Your task to perform on an android device: What's on my calendar today? Image 0: 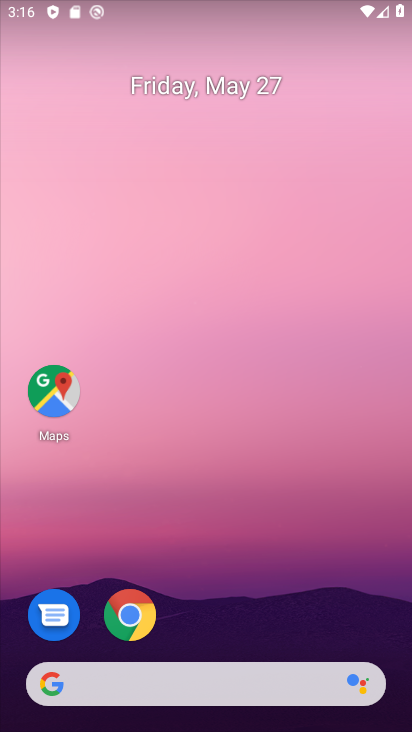
Step 0: drag from (113, 709) to (20, 316)
Your task to perform on an android device: What's on my calendar today? Image 1: 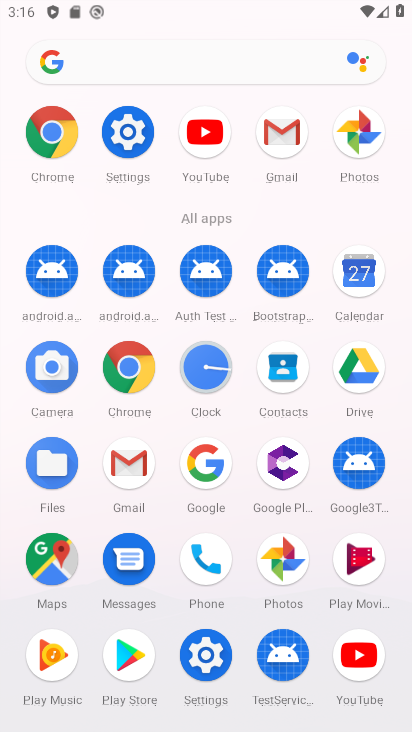
Step 1: click (349, 278)
Your task to perform on an android device: What's on my calendar today? Image 2: 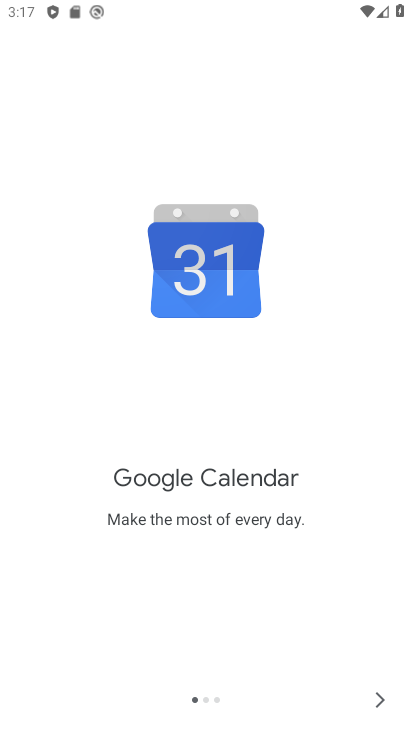
Step 2: click (383, 703)
Your task to perform on an android device: What's on my calendar today? Image 3: 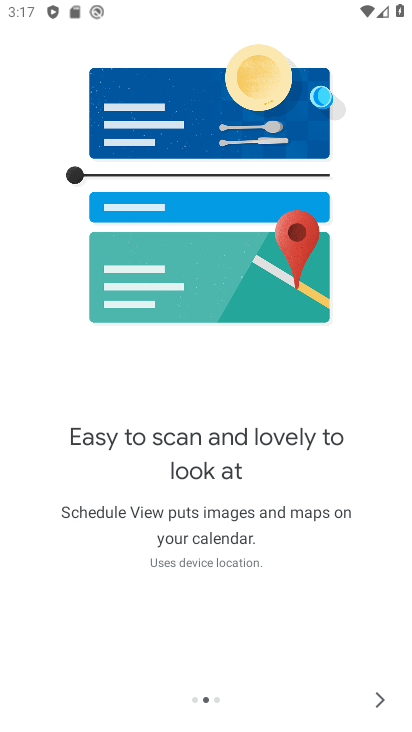
Step 3: click (378, 698)
Your task to perform on an android device: What's on my calendar today? Image 4: 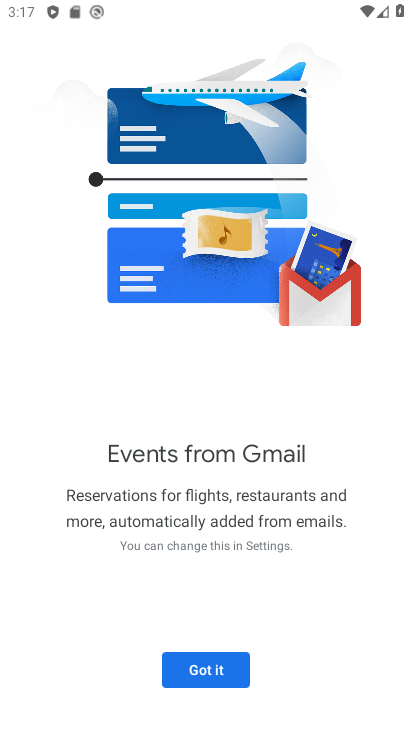
Step 4: click (214, 671)
Your task to perform on an android device: What's on my calendar today? Image 5: 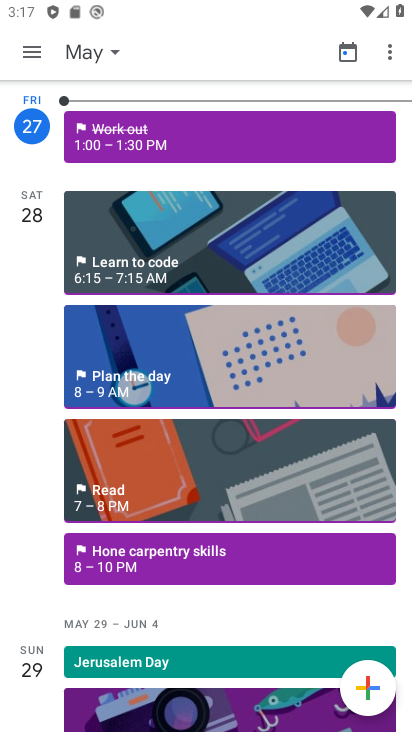
Step 5: click (211, 153)
Your task to perform on an android device: What's on my calendar today? Image 6: 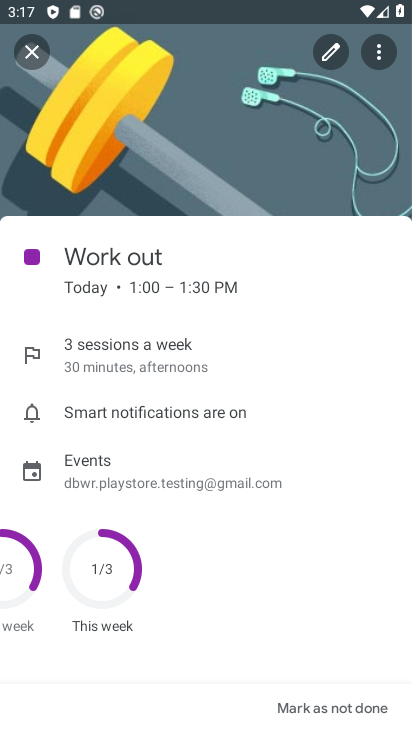
Step 6: task complete